Your task to perform on an android device: find photos in the google photos app Image 0: 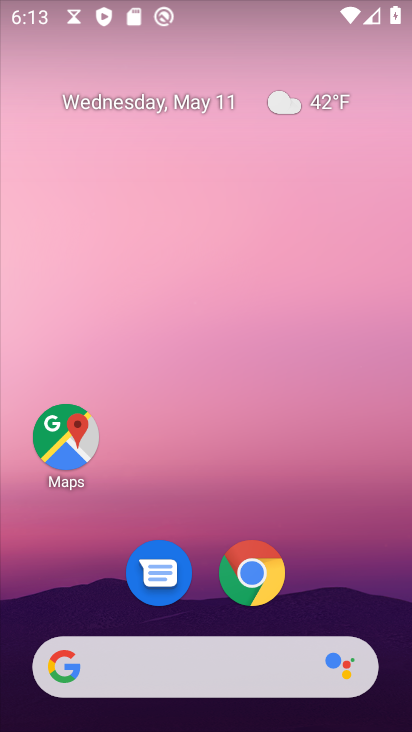
Step 0: drag from (287, 381) to (274, 208)
Your task to perform on an android device: find photos in the google photos app Image 1: 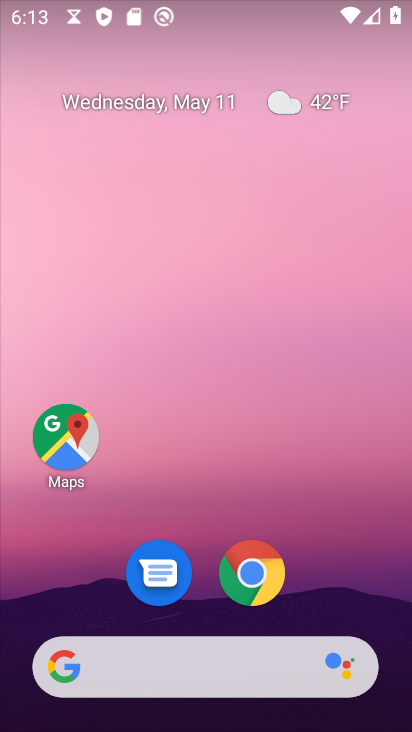
Step 1: drag from (332, 311) to (287, 122)
Your task to perform on an android device: find photos in the google photos app Image 2: 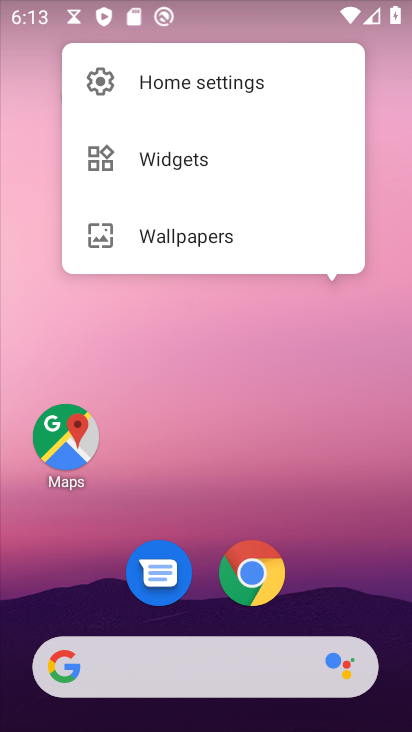
Step 2: click (356, 575)
Your task to perform on an android device: find photos in the google photos app Image 3: 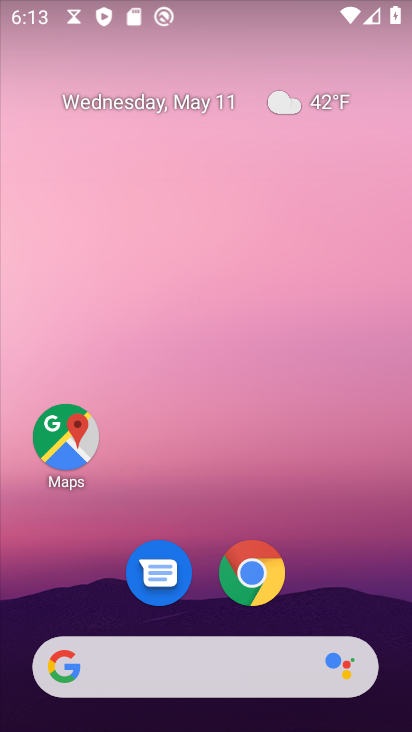
Step 3: drag from (301, 477) to (205, 44)
Your task to perform on an android device: find photos in the google photos app Image 4: 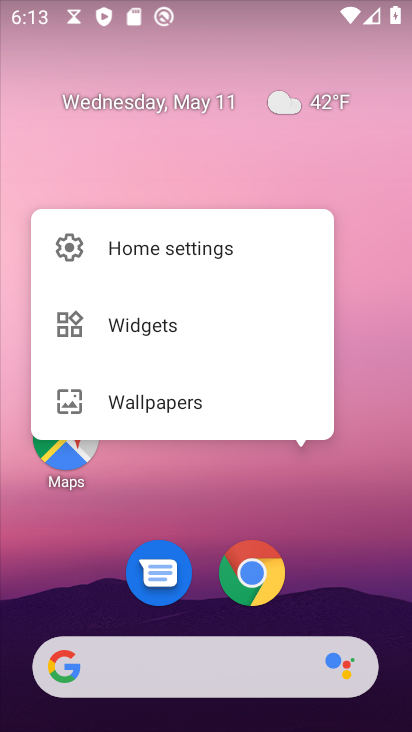
Step 4: click (298, 488)
Your task to perform on an android device: find photos in the google photos app Image 5: 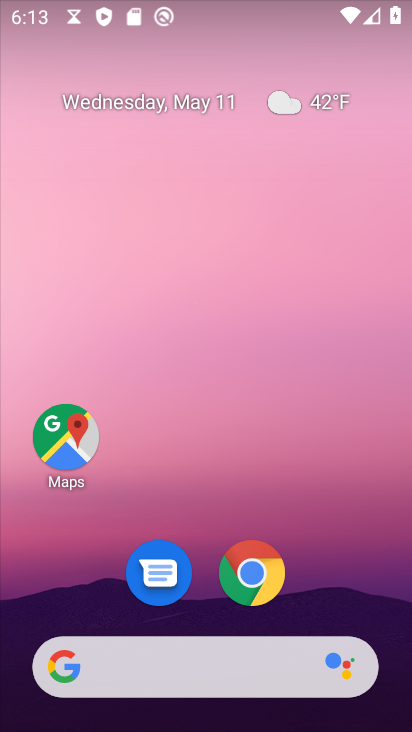
Step 5: drag from (302, 578) to (160, 114)
Your task to perform on an android device: find photos in the google photos app Image 6: 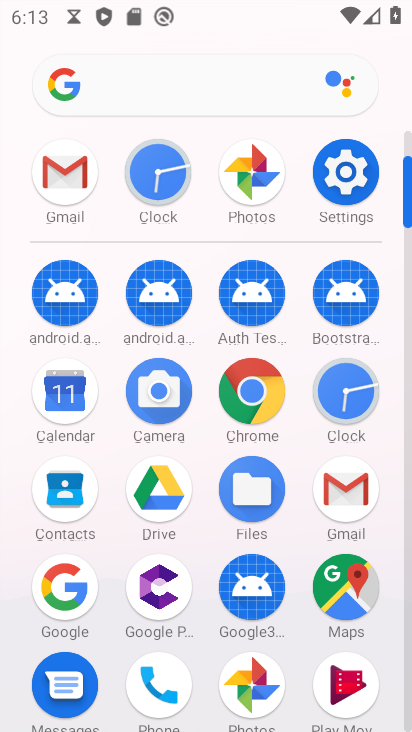
Step 6: click (249, 690)
Your task to perform on an android device: find photos in the google photos app Image 7: 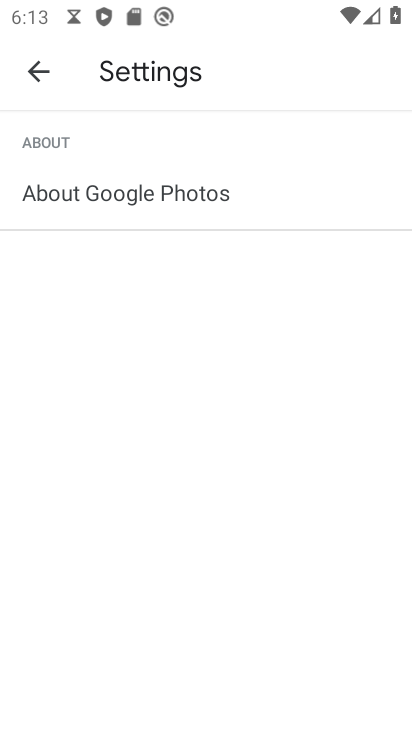
Step 7: click (39, 79)
Your task to perform on an android device: find photos in the google photos app Image 8: 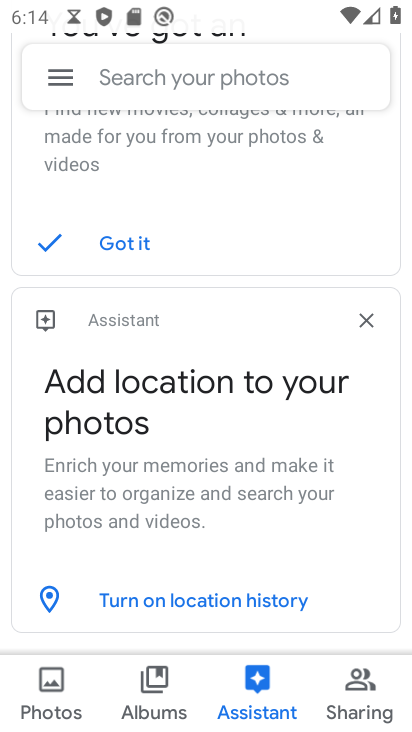
Step 8: press back button
Your task to perform on an android device: find photos in the google photos app Image 9: 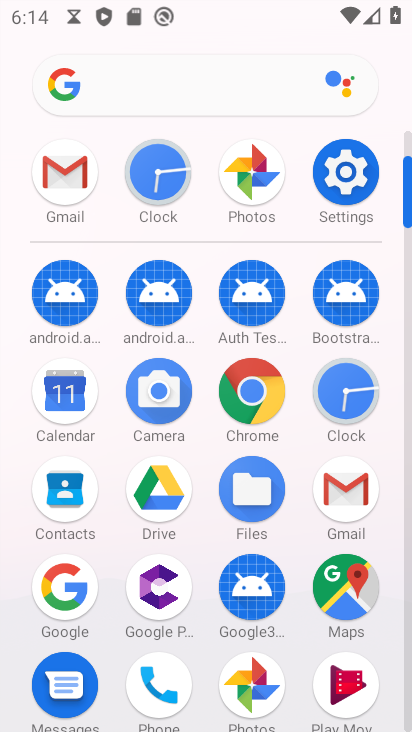
Step 9: click (245, 684)
Your task to perform on an android device: find photos in the google photos app Image 10: 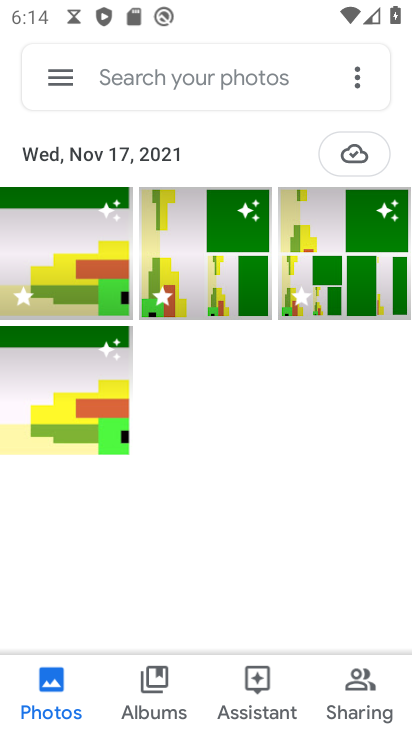
Step 10: click (160, 65)
Your task to perform on an android device: find photos in the google photos app Image 11: 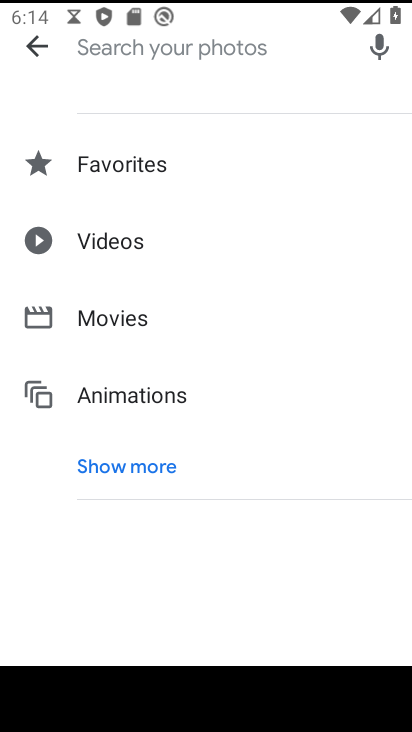
Step 11: click (128, 170)
Your task to perform on an android device: find photos in the google photos app Image 12: 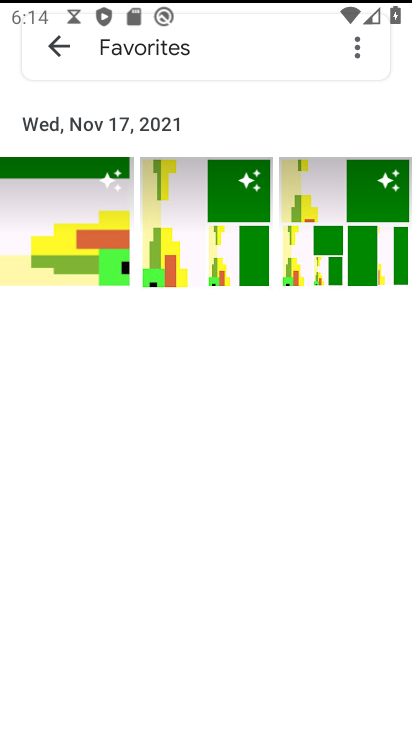
Step 12: task complete